Your task to perform on an android device: Open location settings Image 0: 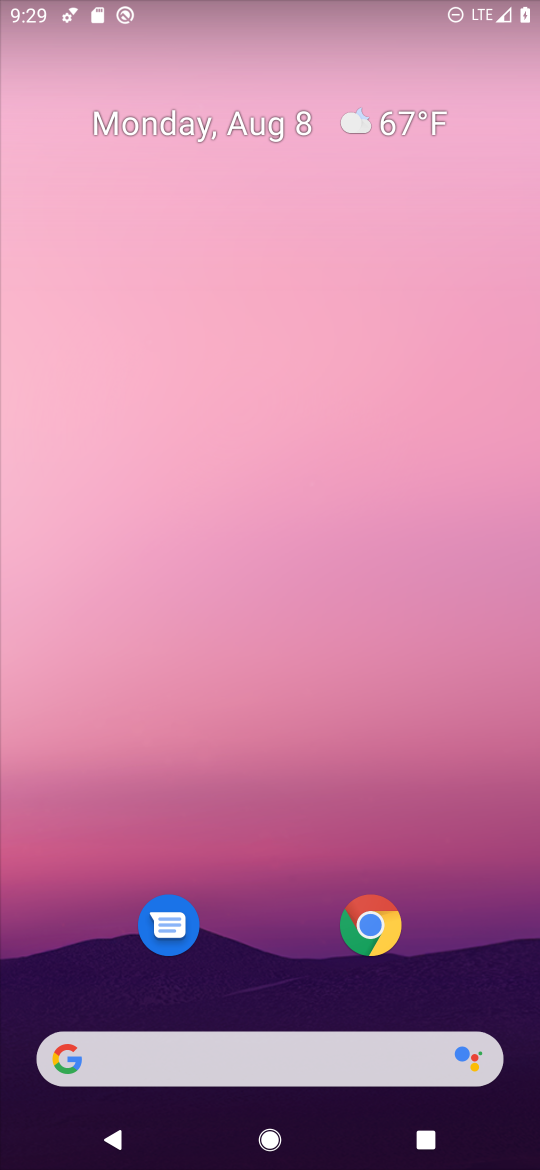
Step 0: drag from (265, 957) to (225, 9)
Your task to perform on an android device: Open location settings Image 1: 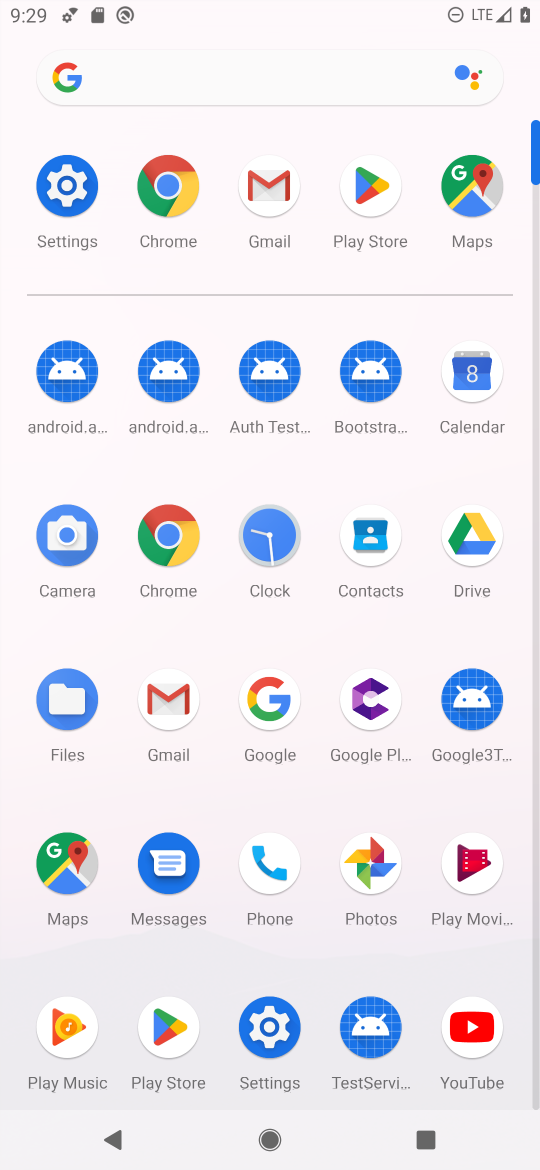
Step 1: click (280, 1013)
Your task to perform on an android device: Open location settings Image 2: 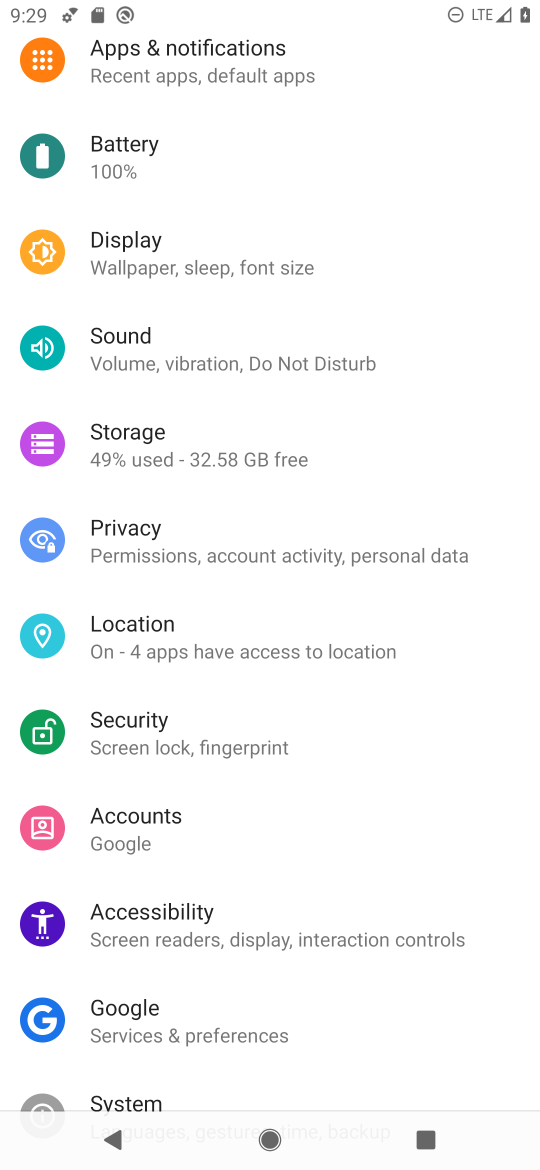
Step 2: click (118, 636)
Your task to perform on an android device: Open location settings Image 3: 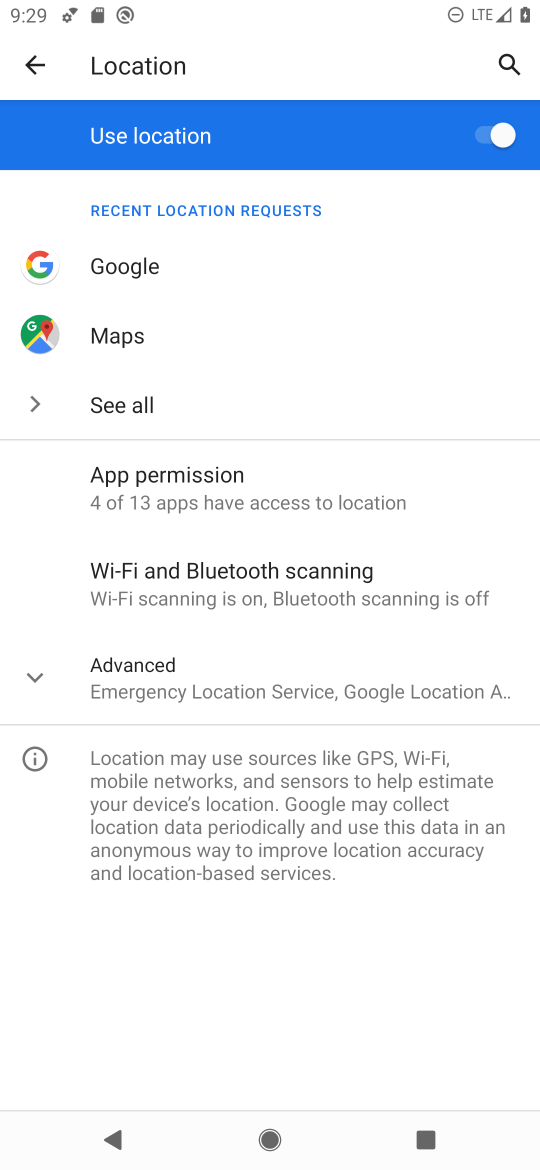
Step 3: task complete